Your task to perform on an android device: Open Google Chrome and click the shortcut for Amazon.com Image 0: 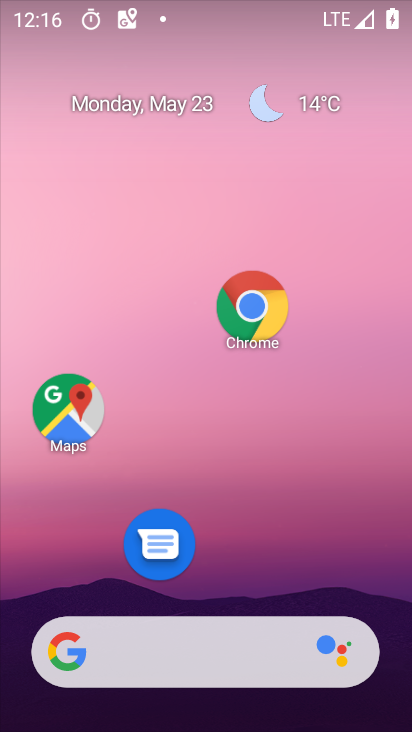
Step 0: click (257, 324)
Your task to perform on an android device: Open Google Chrome and click the shortcut for Amazon.com Image 1: 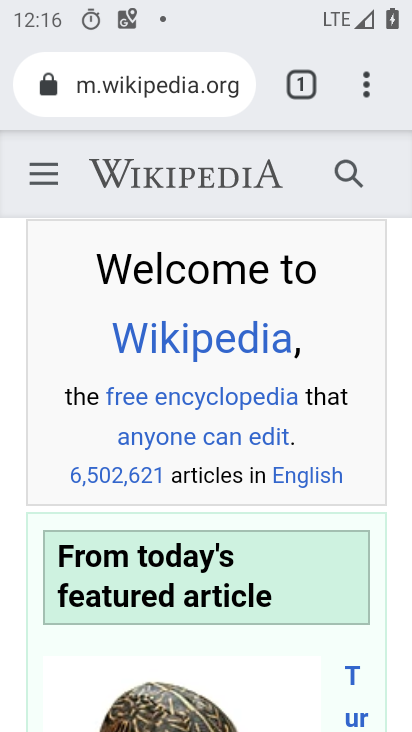
Step 1: press back button
Your task to perform on an android device: Open Google Chrome and click the shortcut for Amazon.com Image 2: 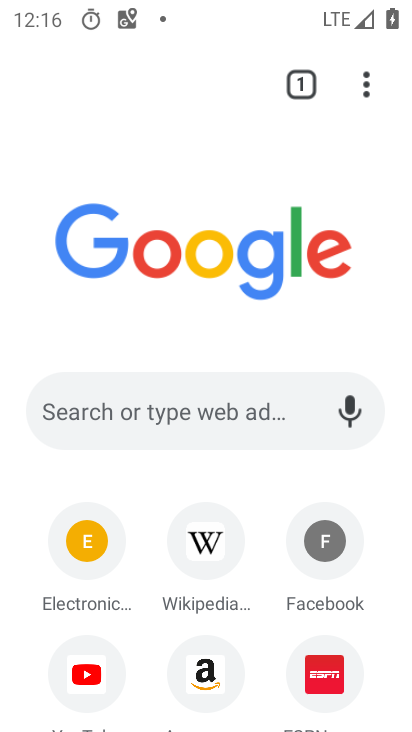
Step 2: click (210, 673)
Your task to perform on an android device: Open Google Chrome and click the shortcut for Amazon.com Image 3: 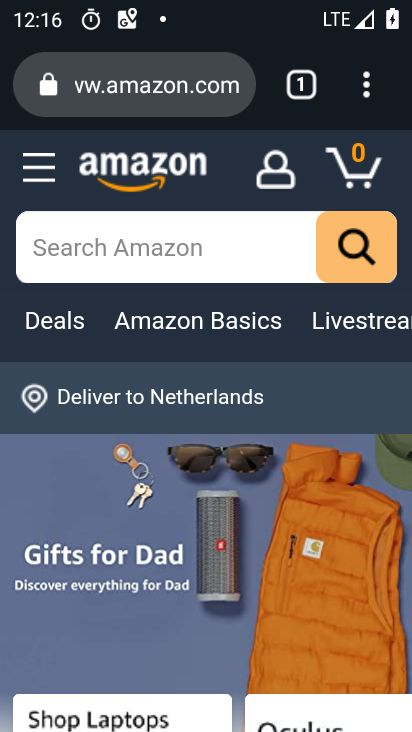
Step 3: task complete